Your task to perform on an android device: turn off notifications settings in the gmail app Image 0: 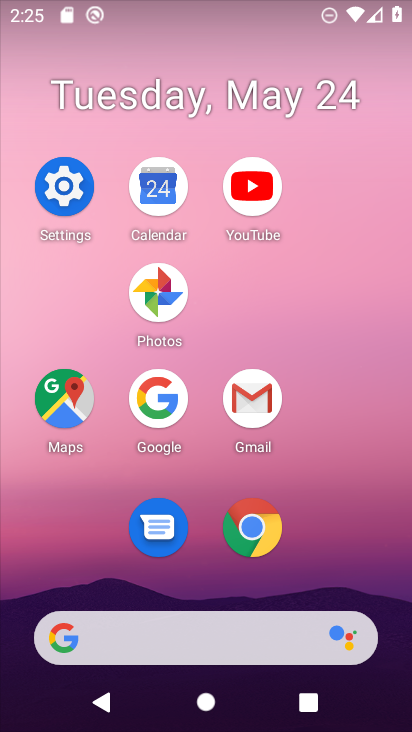
Step 0: click (257, 374)
Your task to perform on an android device: turn off notifications settings in the gmail app Image 1: 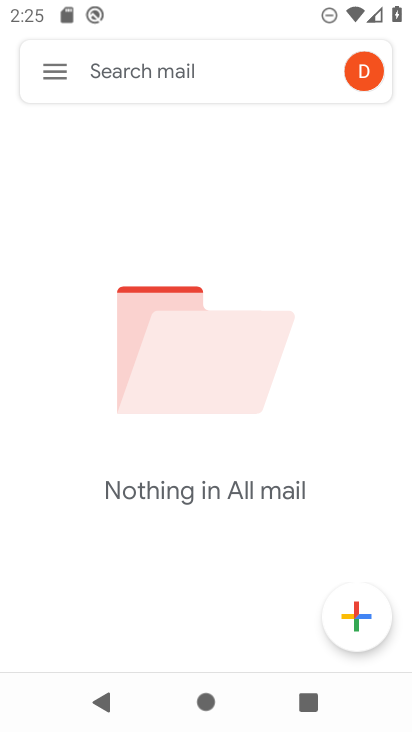
Step 1: click (50, 62)
Your task to perform on an android device: turn off notifications settings in the gmail app Image 2: 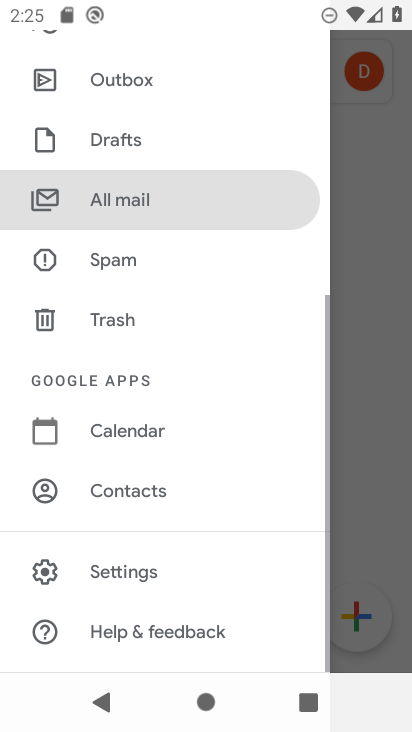
Step 2: drag from (230, 490) to (180, 292)
Your task to perform on an android device: turn off notifications settings in the gmail app Image 3: 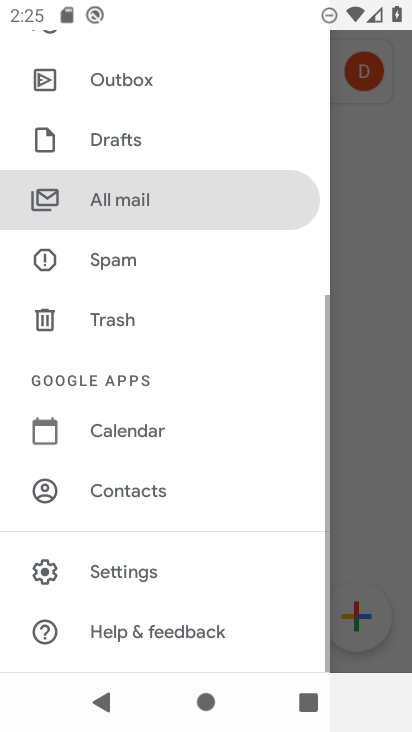
Step 3: click (156, 578)
Your task to perform on an android device: turn off notifications settings in the gmail app Image 4: 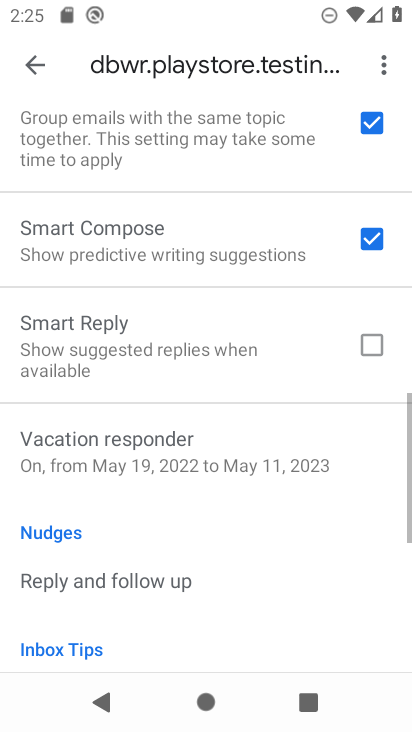
Step 4: drag from (154, 520) to (134, 216)
Your task to perform on an android device: turn off notifications settings in the gmail app Image 5: 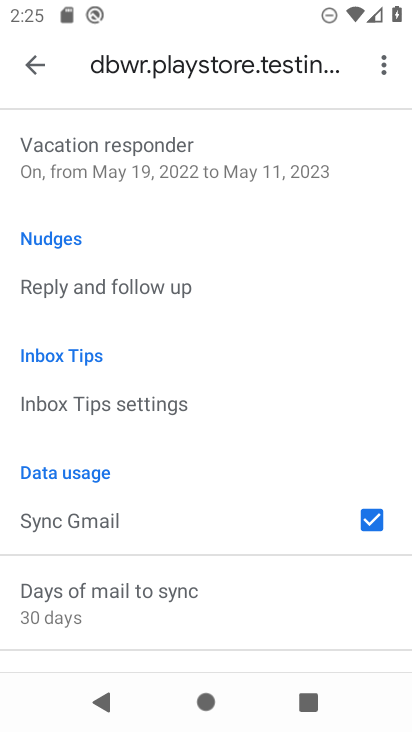
Step 5: drag from (222, 582) to (144, 251)
Your task to perform on an android device: turn off notifications settings in the gmail app Image 6: 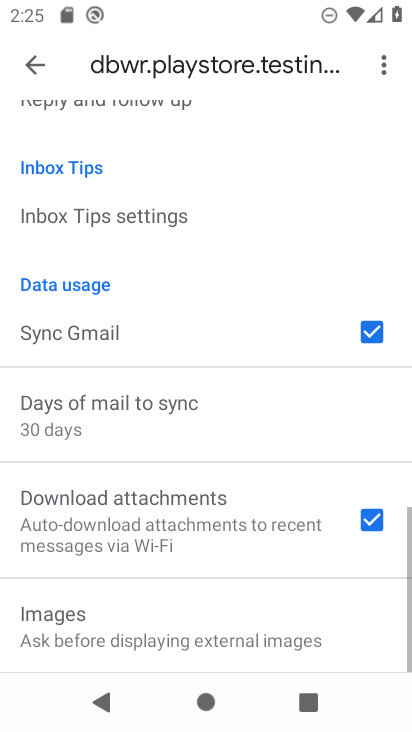
Step 6: drag from (235, 577) to (162, 243)
Your task to perform on an android device: turn off notifications settings in the gmail app Image 7: 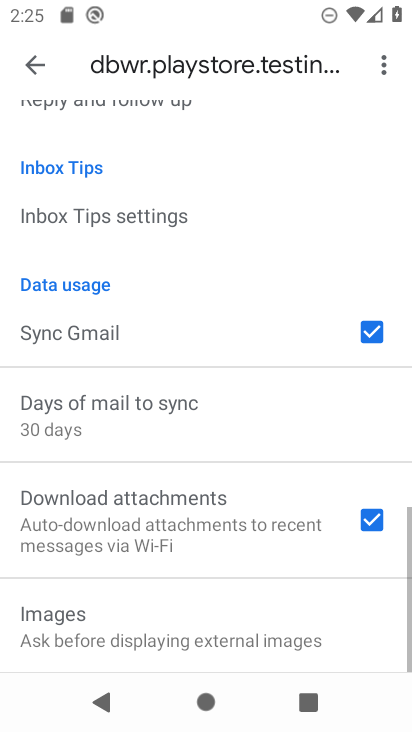
Step 7: drag from (226, 594) to (319, 264)
Your task to perform on an android device: turn off notifications settings in the gmail app Image 8: 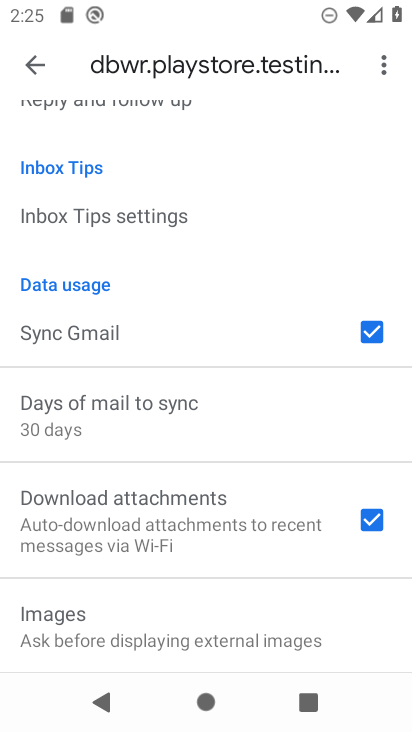
Step 8: drag from (310, 243) to (358, 614)
Your task to perform on an android device: turn off notifications settings in the gmail app Image 9: 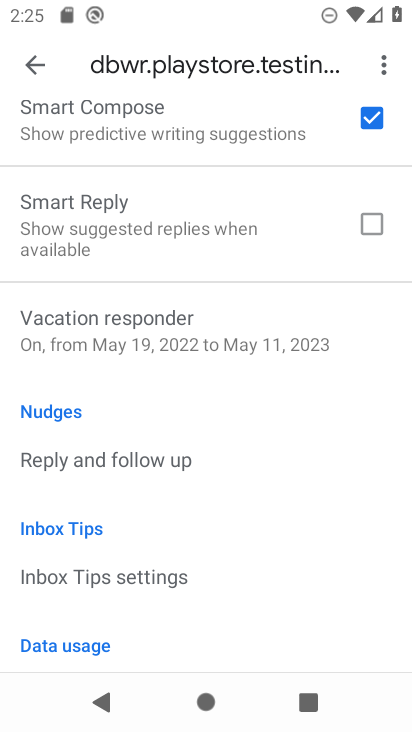
Step 9: drag from (254, 307) to (312, 621)
Your task to perform on an android device: turn off notifications settings in the gmail app Image 10: 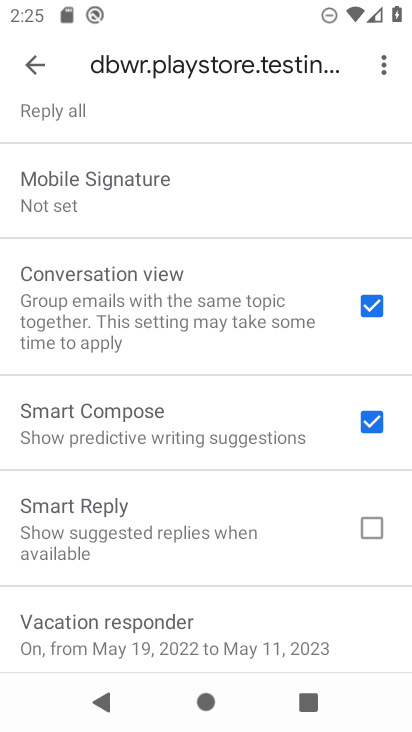
Step 10: drag from (182, 216) to (238, 529)
Your task to perform on an android device: turn off notifications settings in the gmail app Image 11: 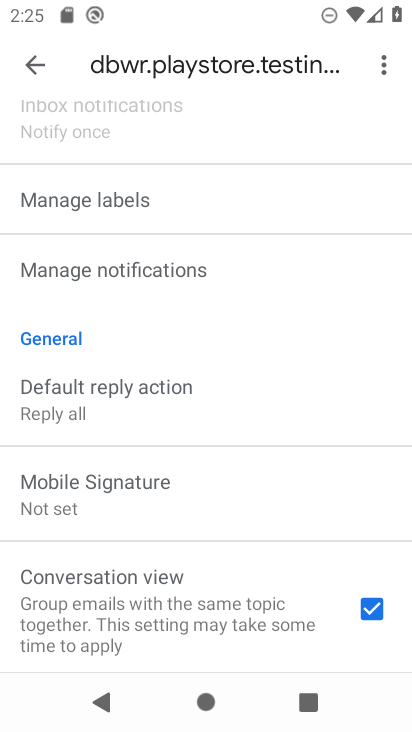
Step 11: drag from (197, 249) to (277, 533)
Your task to perform on an android device: turn off notifications settings in the gmail app Image 12: 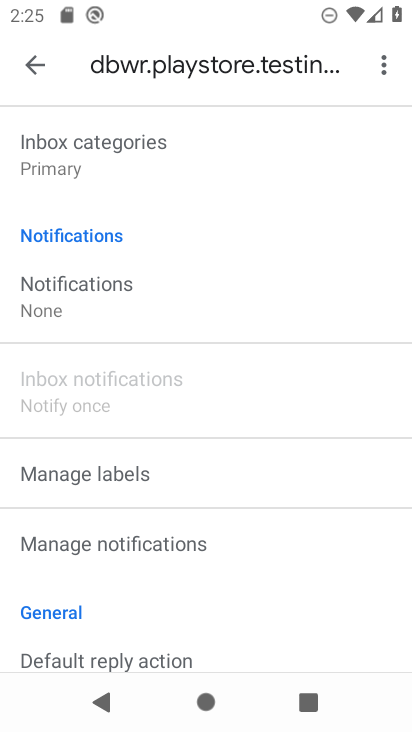
Step 12: click (145, 287)
Your task to perform on an android device: turn off notifications settings in the gmail app Image 13: 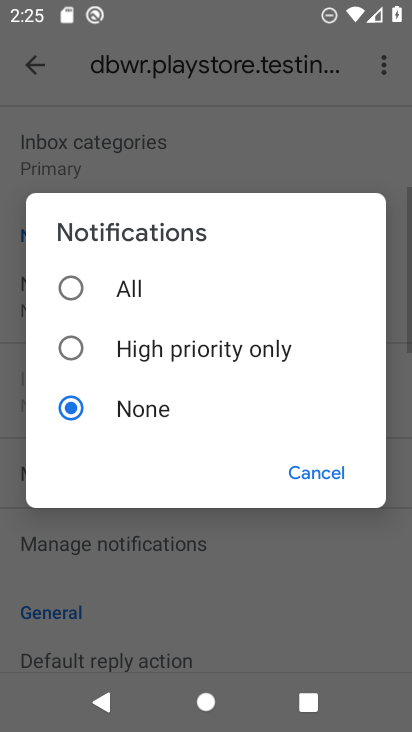
Step 13: task complete